Your task to perform on an android device: Clear all items from cart on amazon.com. Search for "razer blade" on amazon.com, select the first entry, add it to the cart, then select checkout. Image 0: 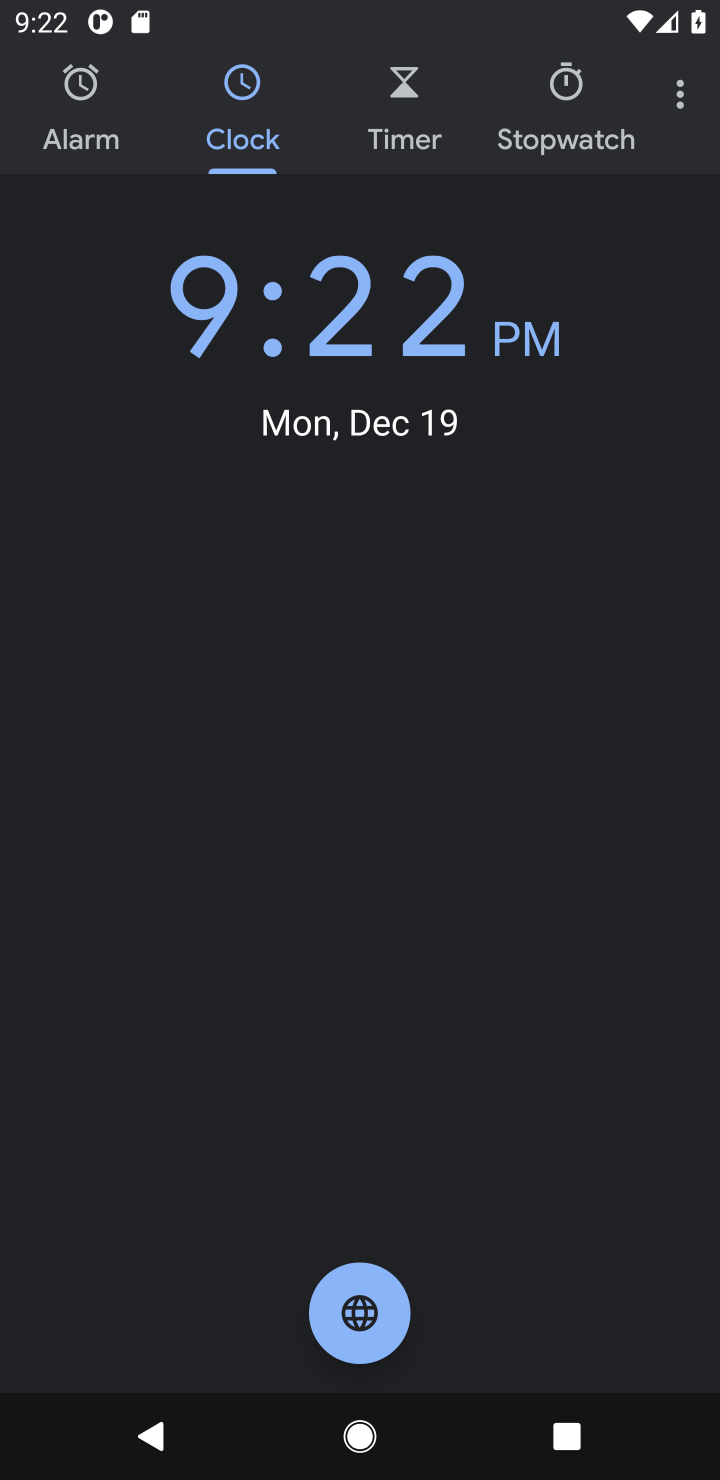
Step 0: press home button
Your task to perform on an android device: Clear all items from cart on amazon.com. Search for "razer blade" on amazon.com, select the first entry, add it to the cart, then select checkout. Image 1: 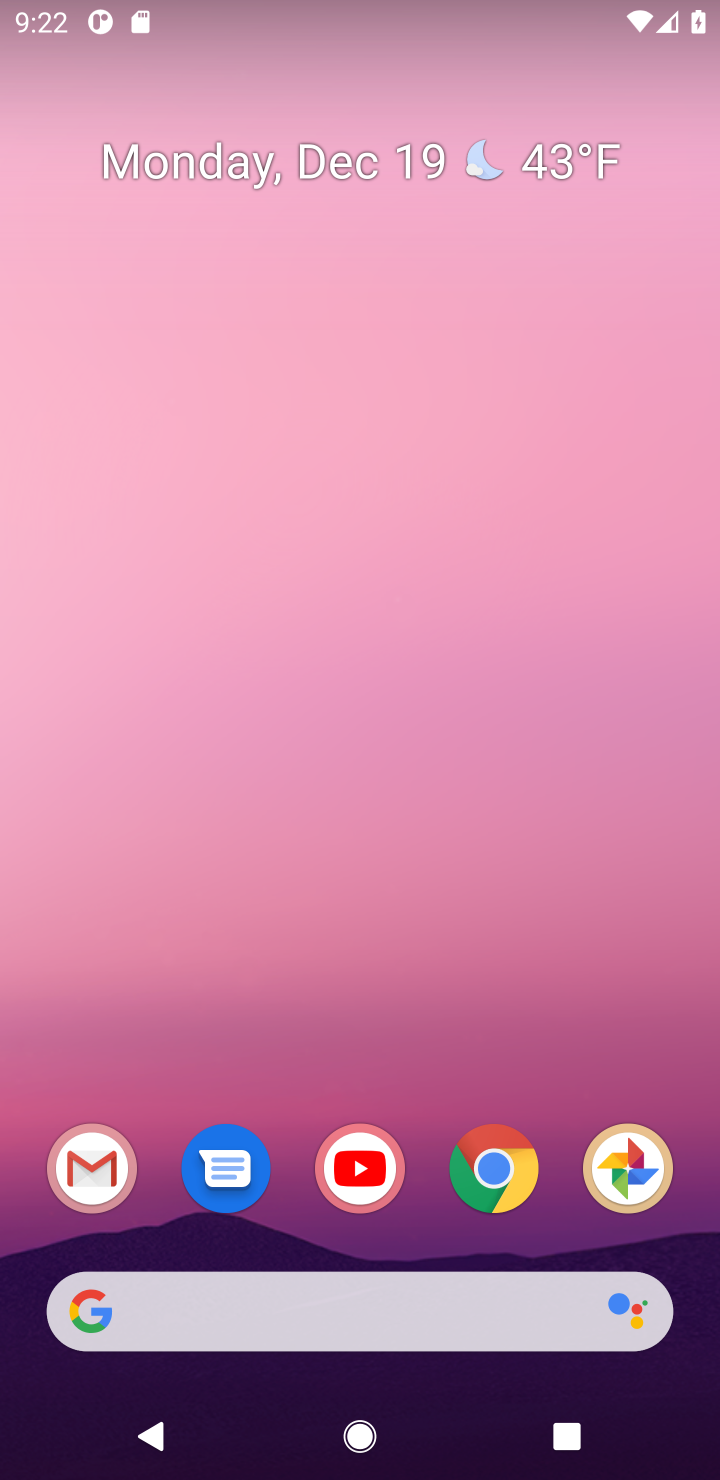
Step 1: click (498, 1179)
Your task to perform on an android device: Clear all items from cart on amazon.com. Search for "razer blade" on amazon.com, select the first entry, add it to the cart, then select checkout. Image 2: 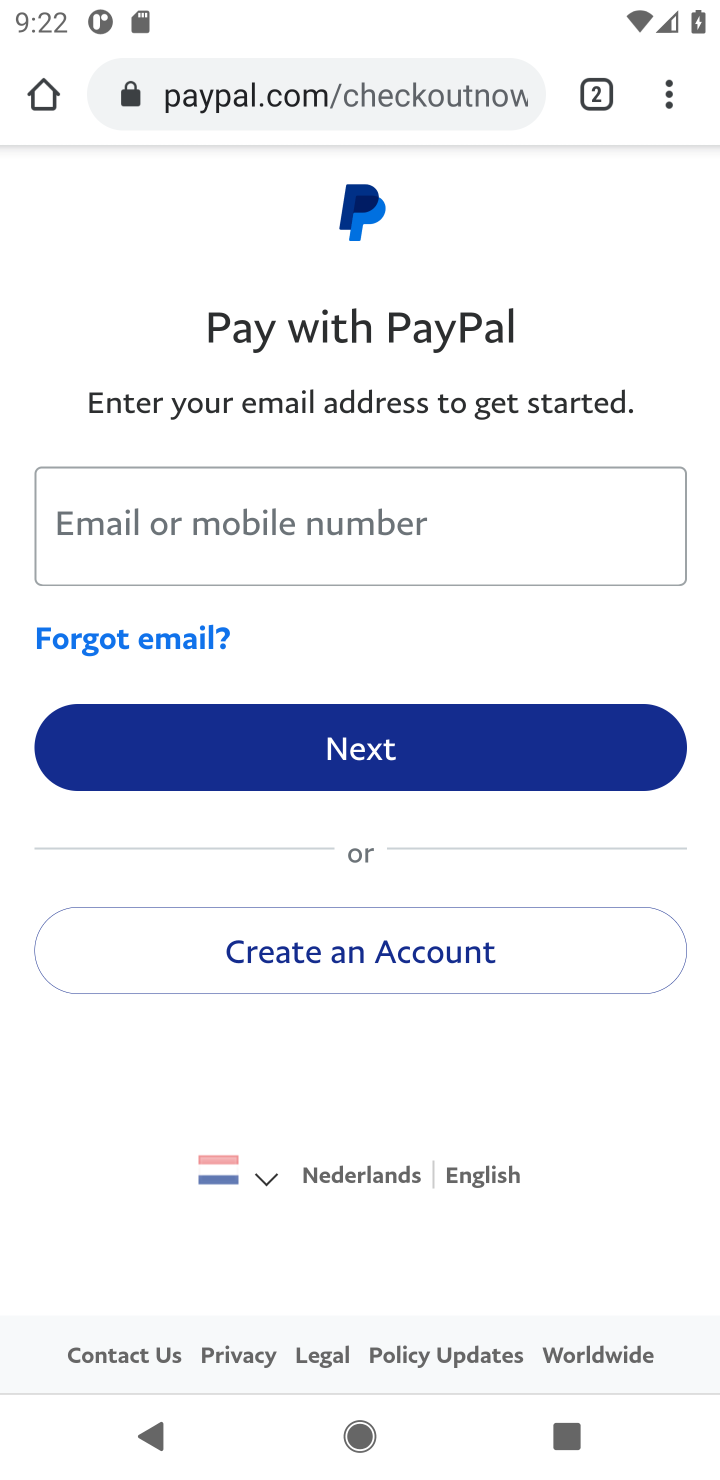
Step 2: click (239, 104)
Your task to perform on an android device: Clear all items from cart on amazon.com. Search for "razer blade" on amazon.com, select the first entry, add it to the cart, then select checkout. Image 3: 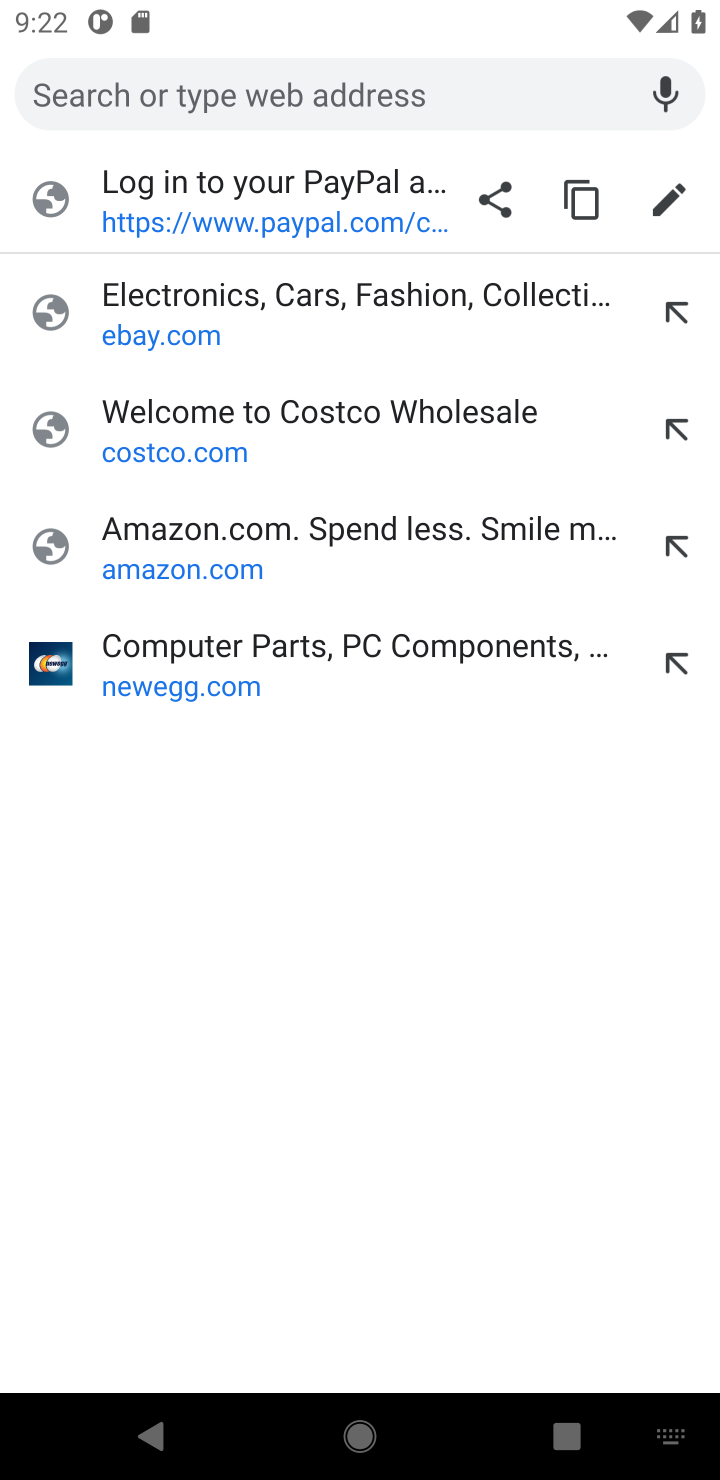
Step 3: click (158, 548)
Your task to perform on an android device: Clear all items from cart on amazon.com. Search for "razer blade" on amazon.com, select the first entry, add it to the cart, then select checkout. Image 4: 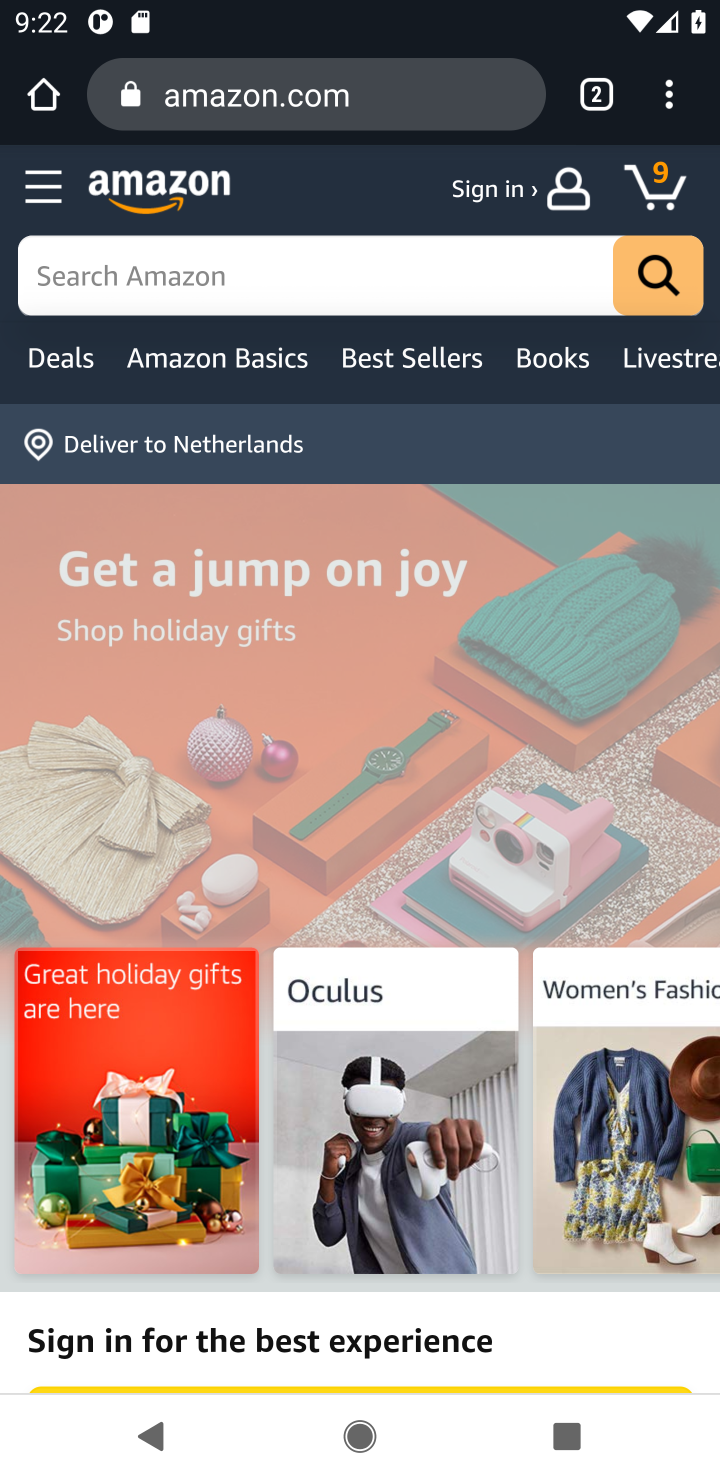
Step 4: click (655, 195)
Your task to perform on an android device: Clear all items from cart on amazon.com. Search for "razer blade" on amazon.com, select the first entry, add it to the cart, then select checkout. Image 5: 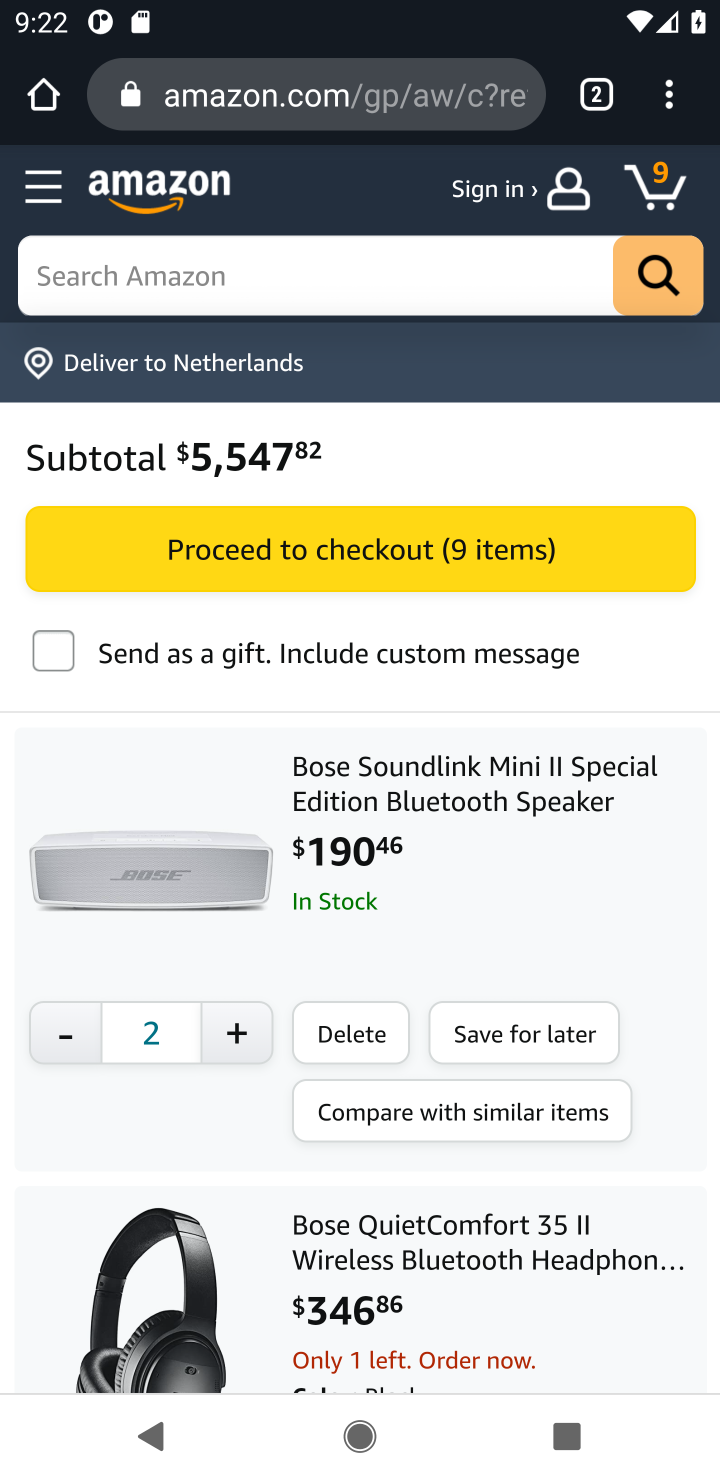
Step 5: click (353, 1035)
Your task to perform on an android device: Clear all items from cart on amazon.com. Search for "razer blade" on amazon.com, select the first entry, add it to the cart, then select checkout. Image 6: 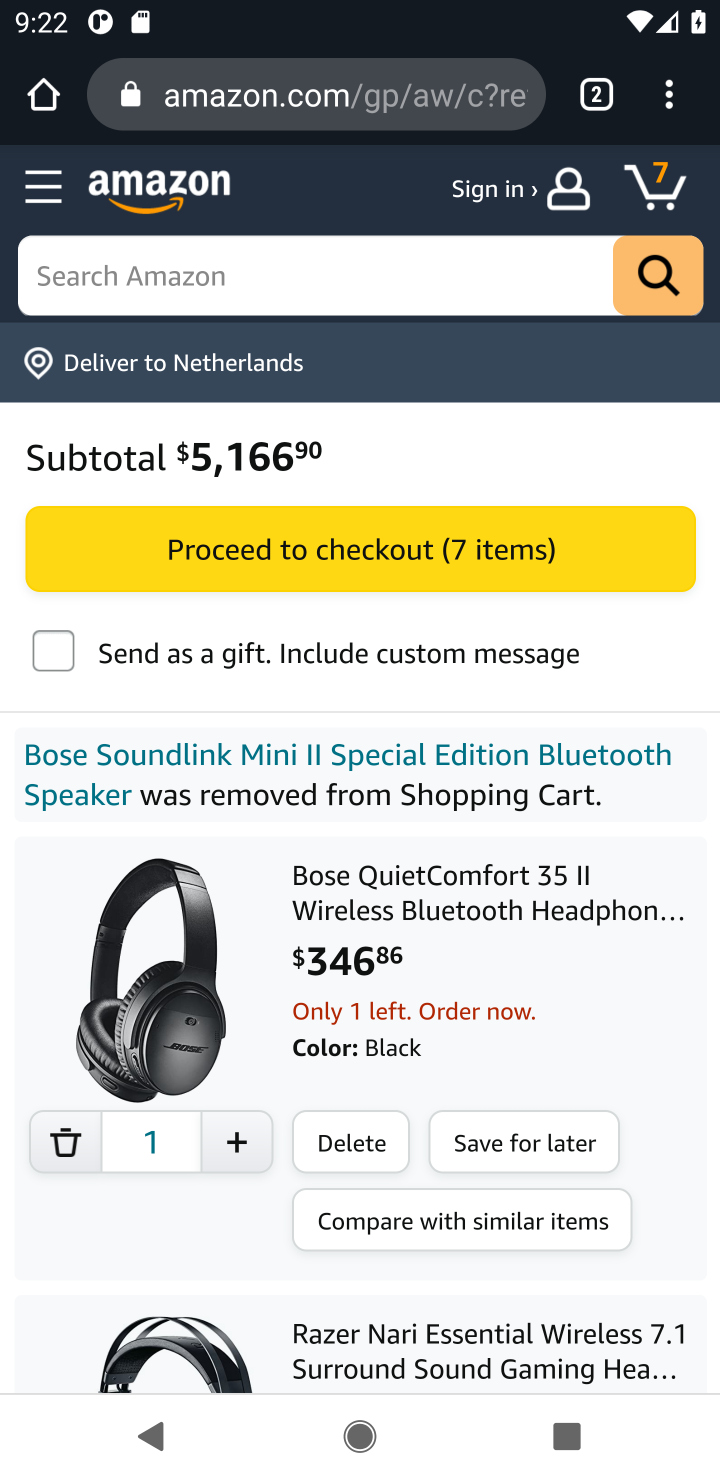
Step 6: click (347, 1138)
Your task to perform on an android device: Clear all items from cart on amazon.com. Search for "razer blade" on amazon.com, select the first entry, add it to the cart, then select checkout. Image 7: 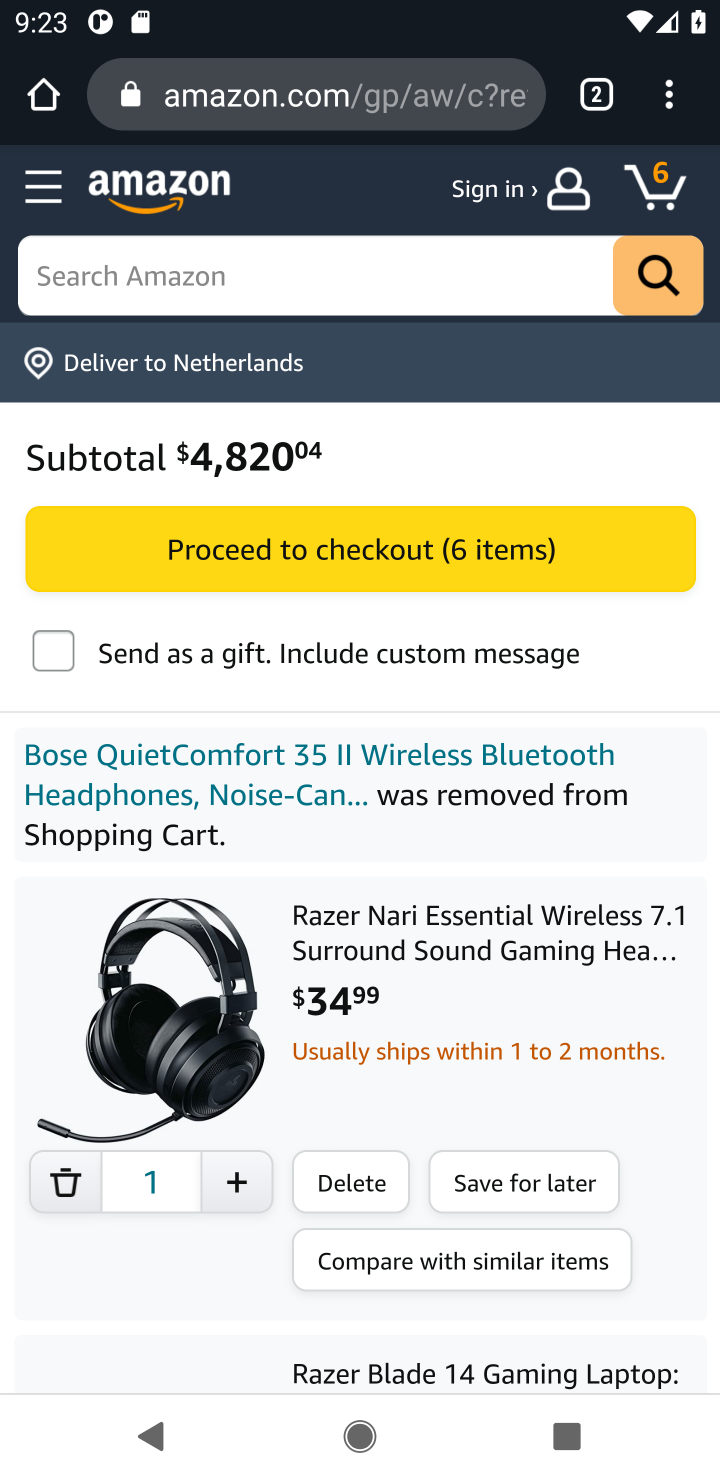
Step 7: click (347, 1177)
Your task to perform on an android device: Clear all items from cart on amazon.com. Search for "razer blade" on amazon.com, select the first entry, add it to the cart, then select checkout. Image 8: 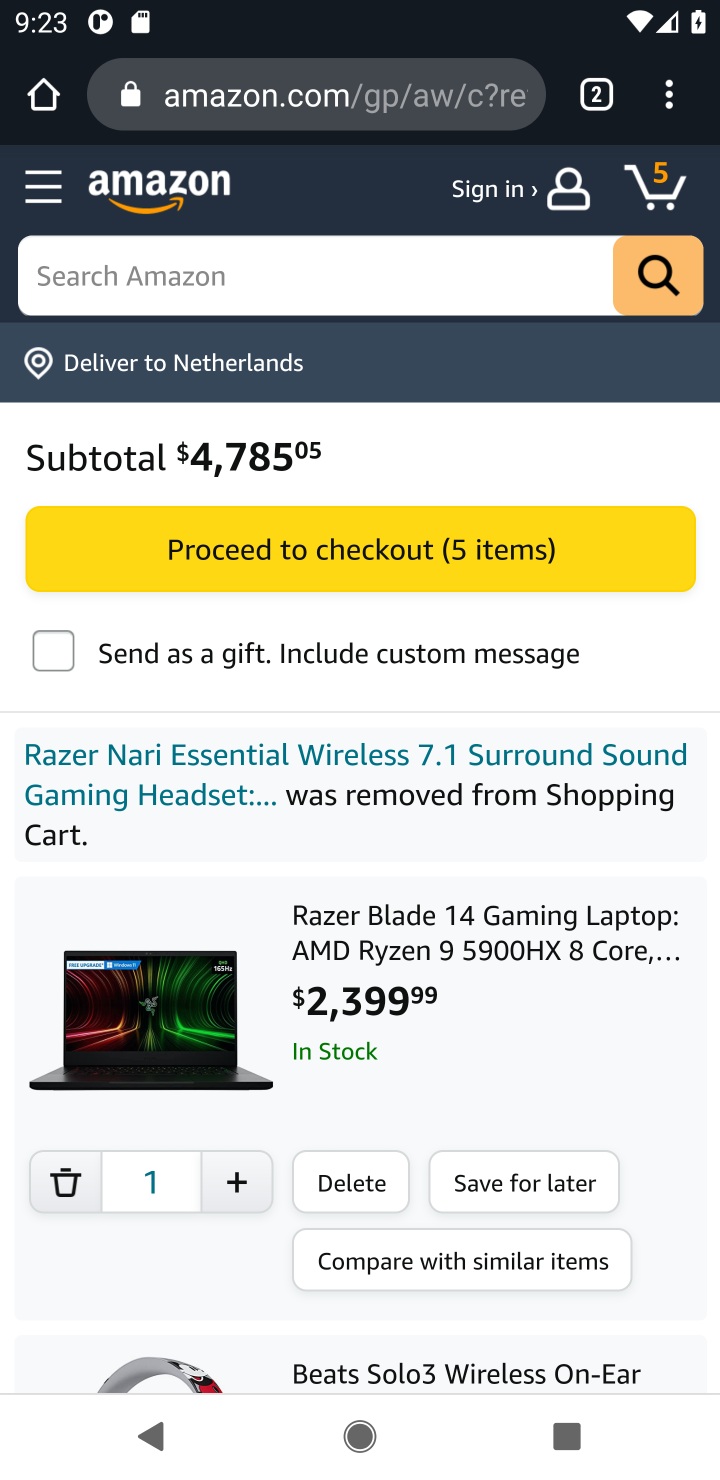
Step 8: click (347, 1177)
Your task to perform on an android device: Clear all items from cart on amazon.com. Search for "razer blade" on amazon.com, select the first entry, add it to the cart, then select checkout. Image 9: 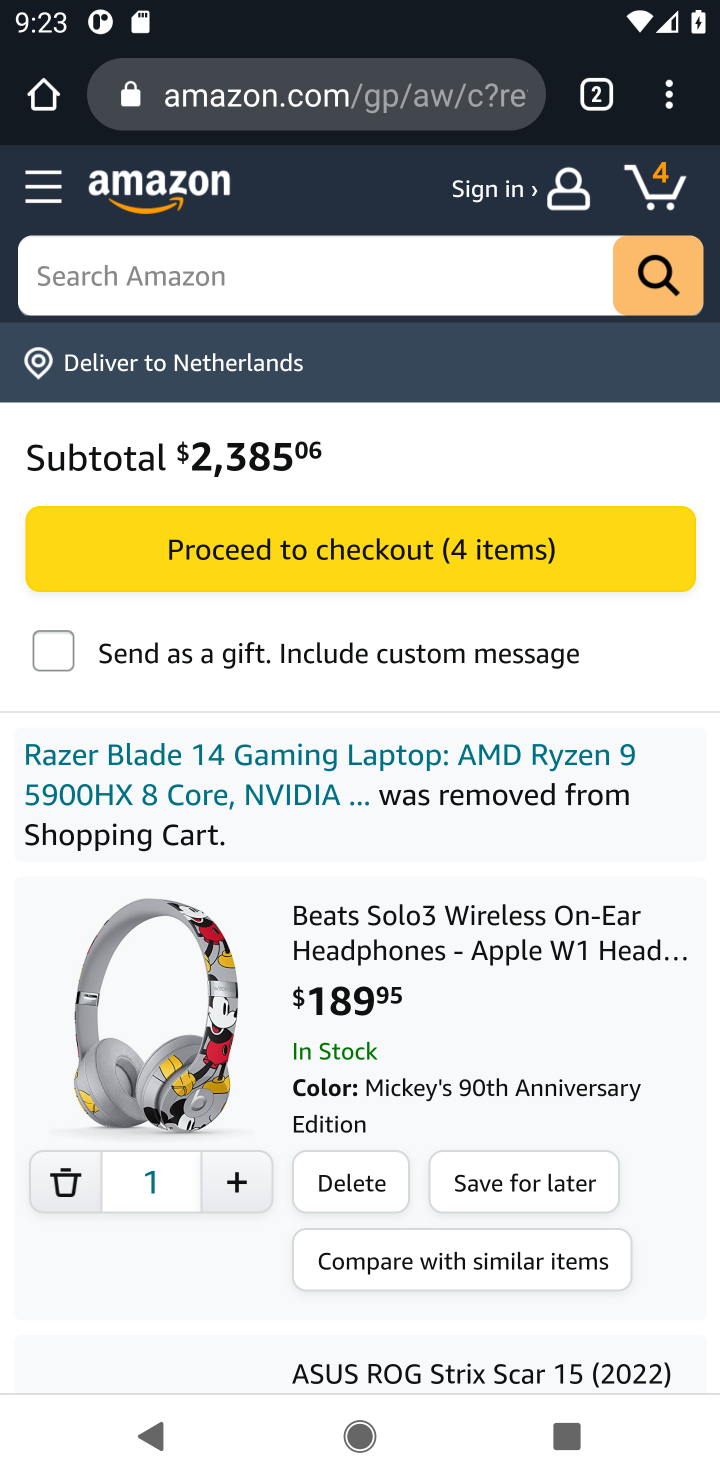
Step 9: click (347, 1177)
Your task to perform on an android device: Clear all items from cart on amazon.com. Search for "razer blade" on amazon.com, select the first entry, add it to the cart, then select checkout. Image 10: 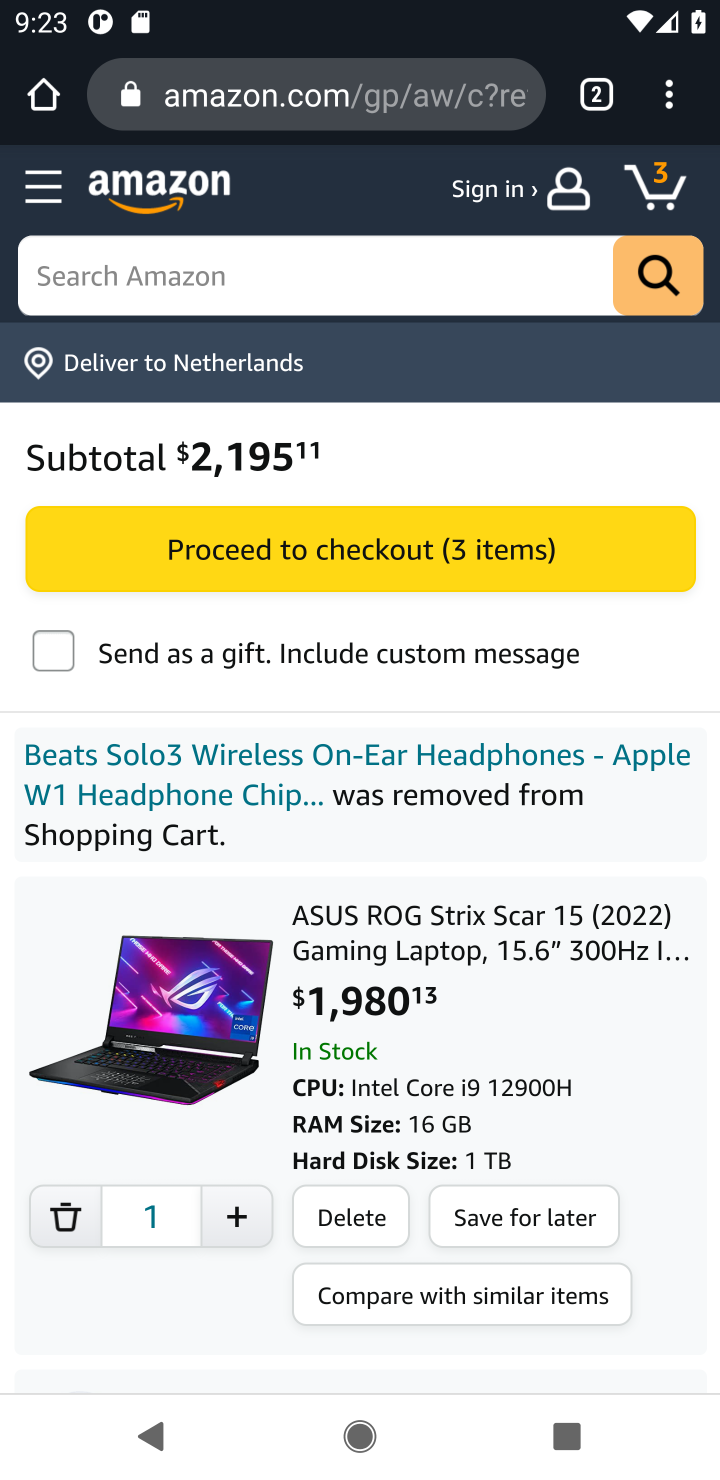
Step 10: click (347, 1213)
Your task to perform on an android device: Clear all items from cart on amazon.com. Search for "razer blade" on amazon.com, select the first entry, add it to the cart, then select checkout. Image 11: 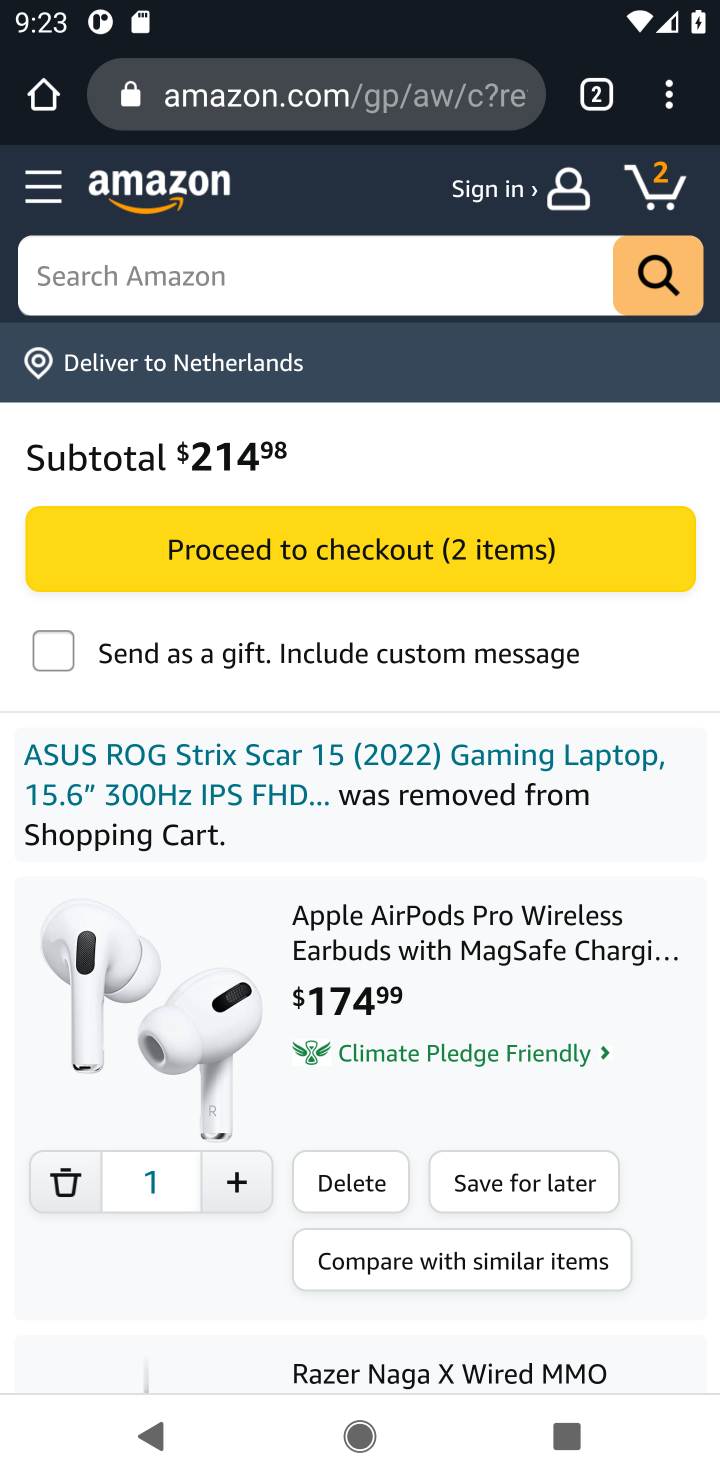
Step 11: click (355, 1171)
Your task to perform on an android device: Clear all items from cart on amazon.com. Search for "razer blade" on amazon.com, select the first entry, add it to the cart, then select checkout. Image 12: 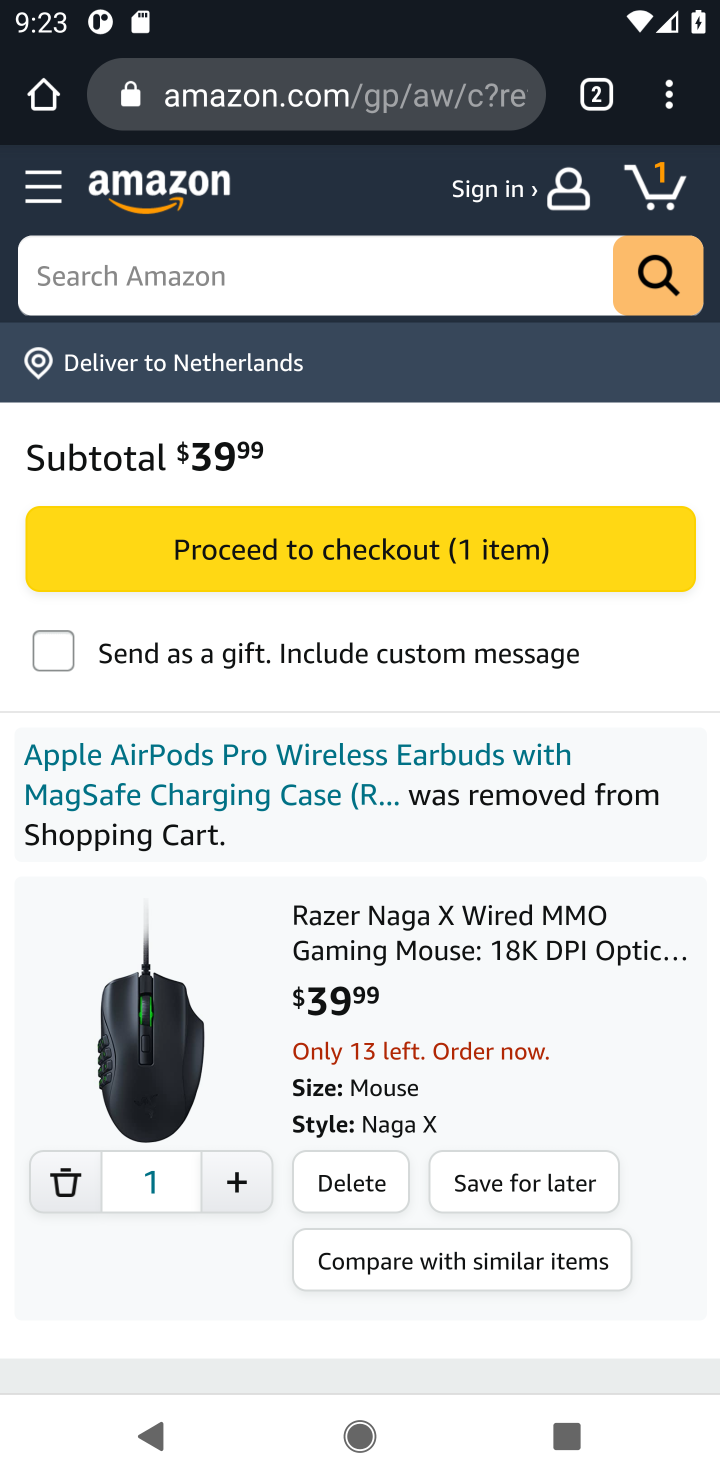
Step 12: click (355, 1179)
Your task to perform on an android device: Clear all items from cart on amazon.com. Search for "razer blade" on amazon.com, select the first entry, add it to the cart, then select checkout. Image 13: 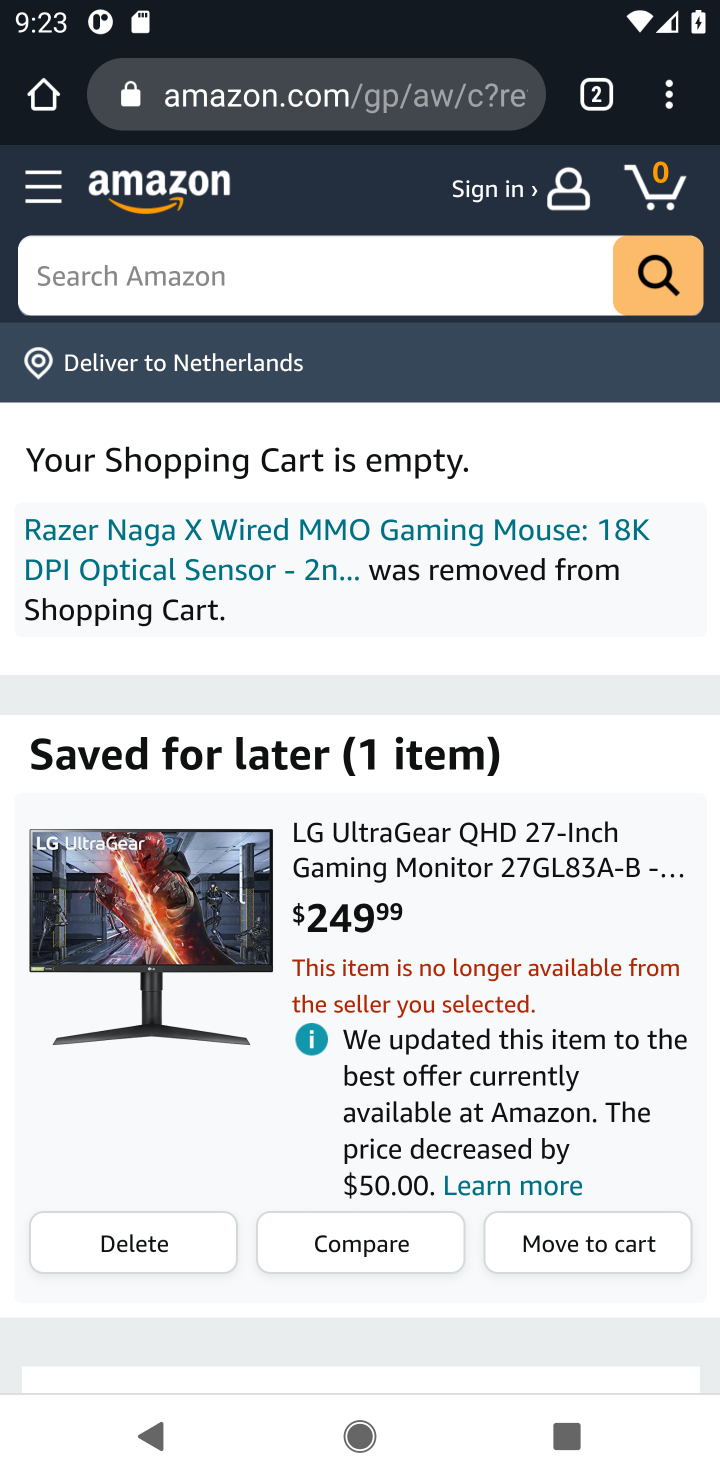
Step 13: click (160, 1245)
Your task to perform on an android device: Clear all items from cart on amazon.com. Search for "razer blade" on amazon.com, select the first entry, add it to the cart, then select checkout. Image 14: 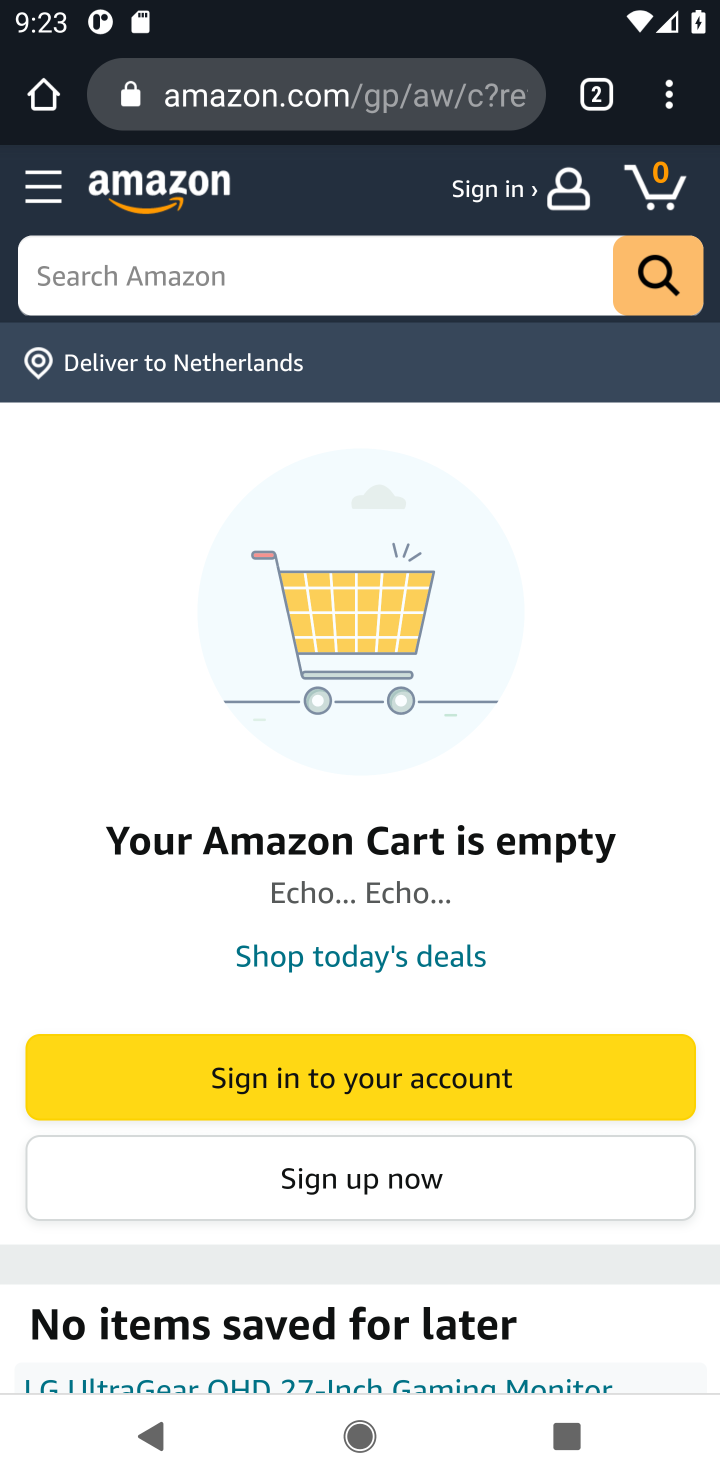
Step 14: click (154, 292)
Your task to perform on an android device: Clear all items from cart on amazon.com. Search for "razer blade" on amazon.com, select the first entry, add it to the cart, then select checkout. Image 15: 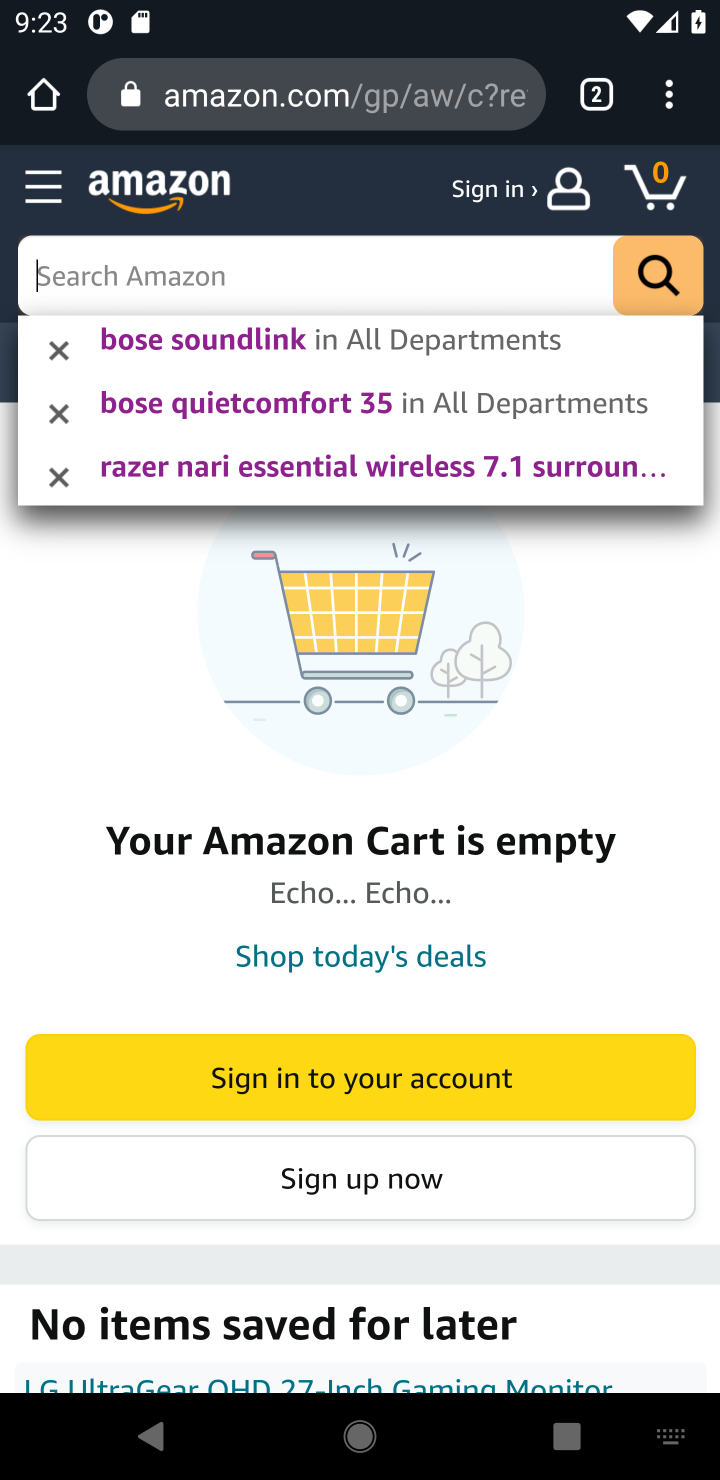
Step 15: type "razer blade"
Your task to perform on an android device: Clear all items from cart on amazon.com. Search for "razer blade" on amazon.com, select the first entry, add it to the cart, then select checkout. Image 16: 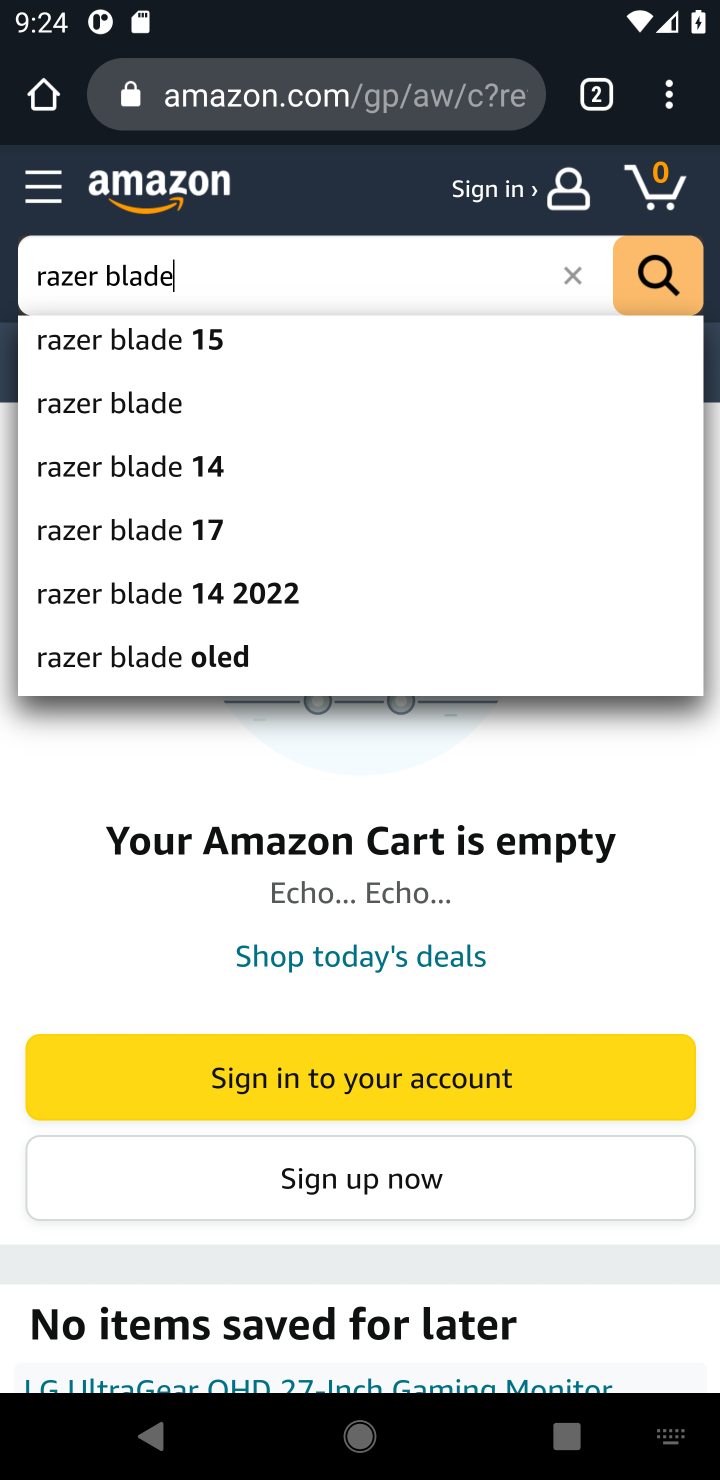
Step 16: click (152, 352)
Your task to perform on an android device: Clear all items from cart on amazon.com. Search for "razer blade" on amazon.com, select the first entry, add it to the cart, then select checkout. Image 17: 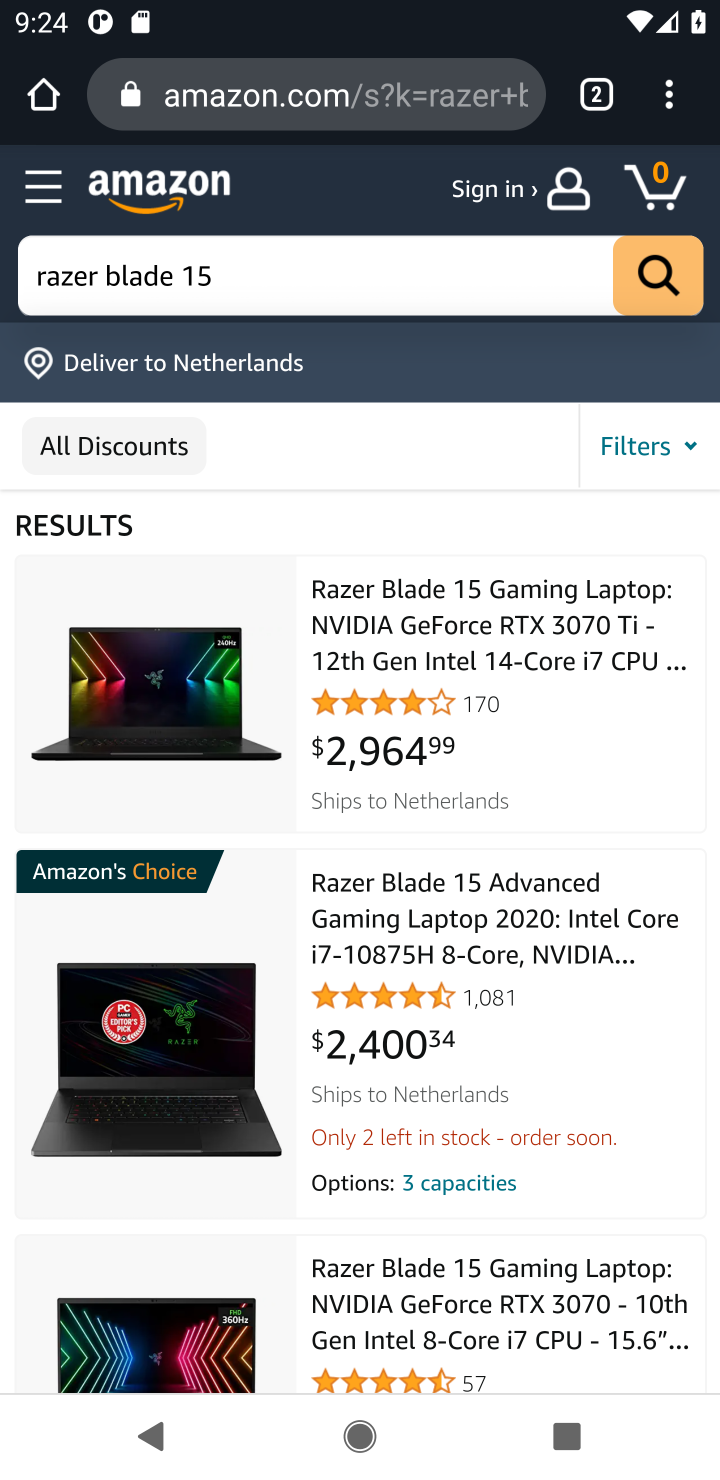
Step 17: click (427, 657)
Your task to perform on an android device: Clear all items from cart on amazon.com. Search for "razer blade" on amazon.com, select the first entry, add it to the cart, then select checkout. Image 18: 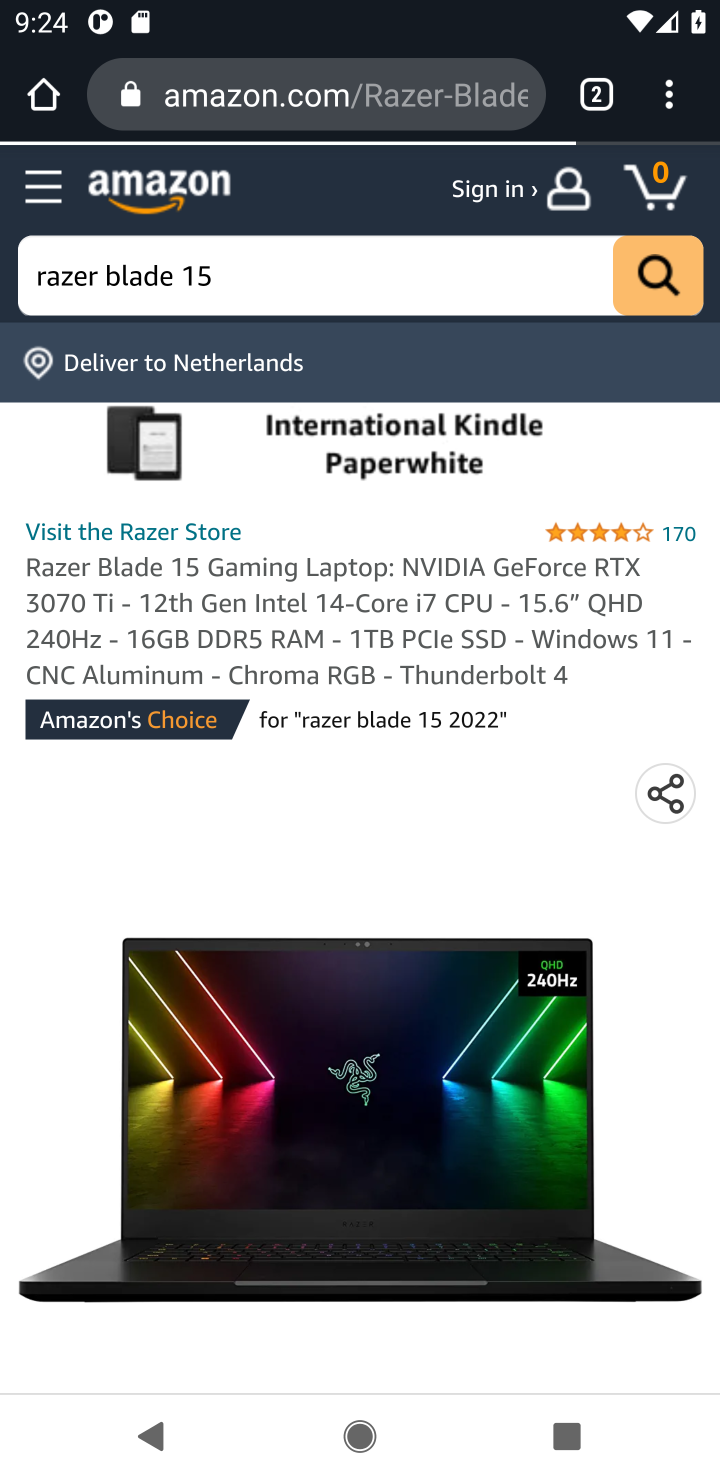
Step 18: drag from (377, 1022) to (342, 475)
Your task to perform on an android device: Clear all items from cart on amazon.com. Search for "razer blade" on amazon.com, select the first entry, add it to the cart, then select checkout. Image 19: 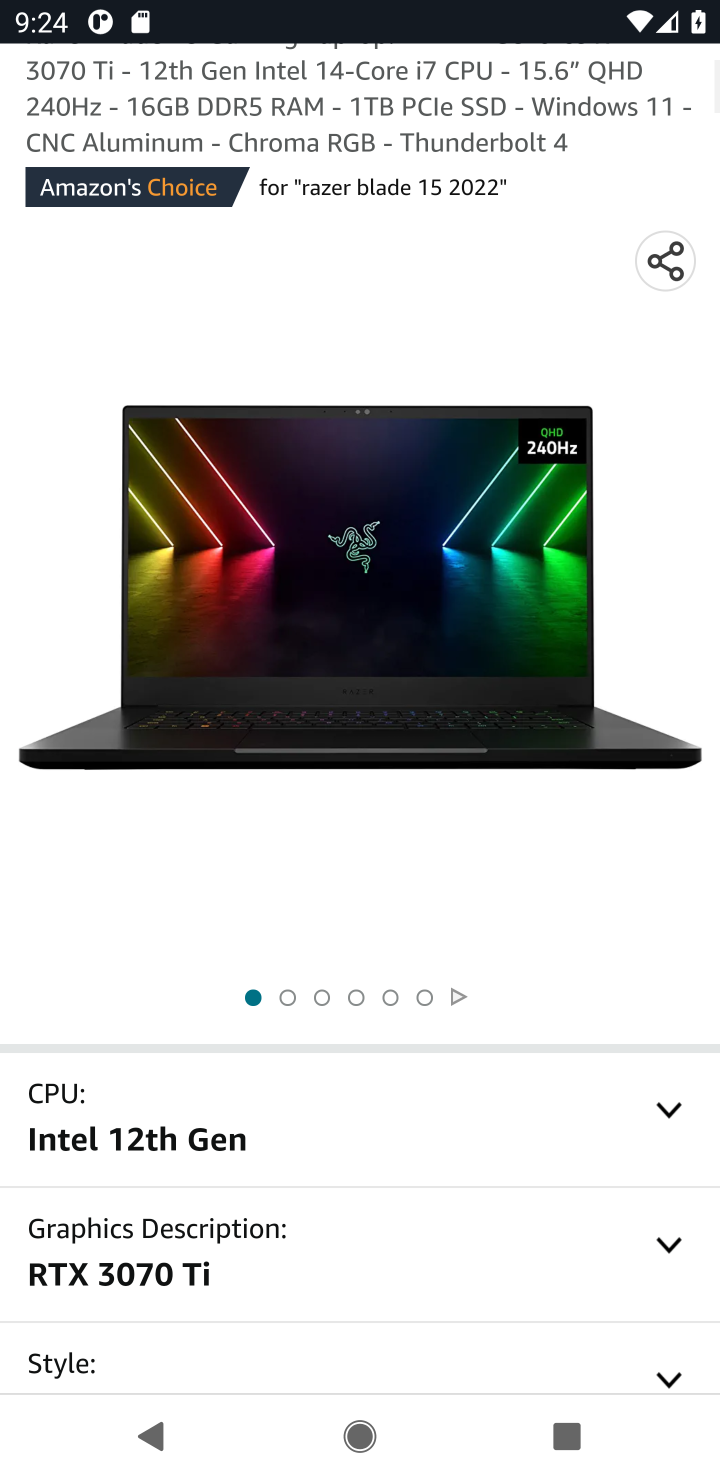
Step 19: drag from (346, 1077) to (365, 543)
Your task to perform on an android device: Clear all items from cart on amazon.com. Search for "razer blade" on amazon.com, select the first entry, add it to the cart, then select checkout. Image 20: 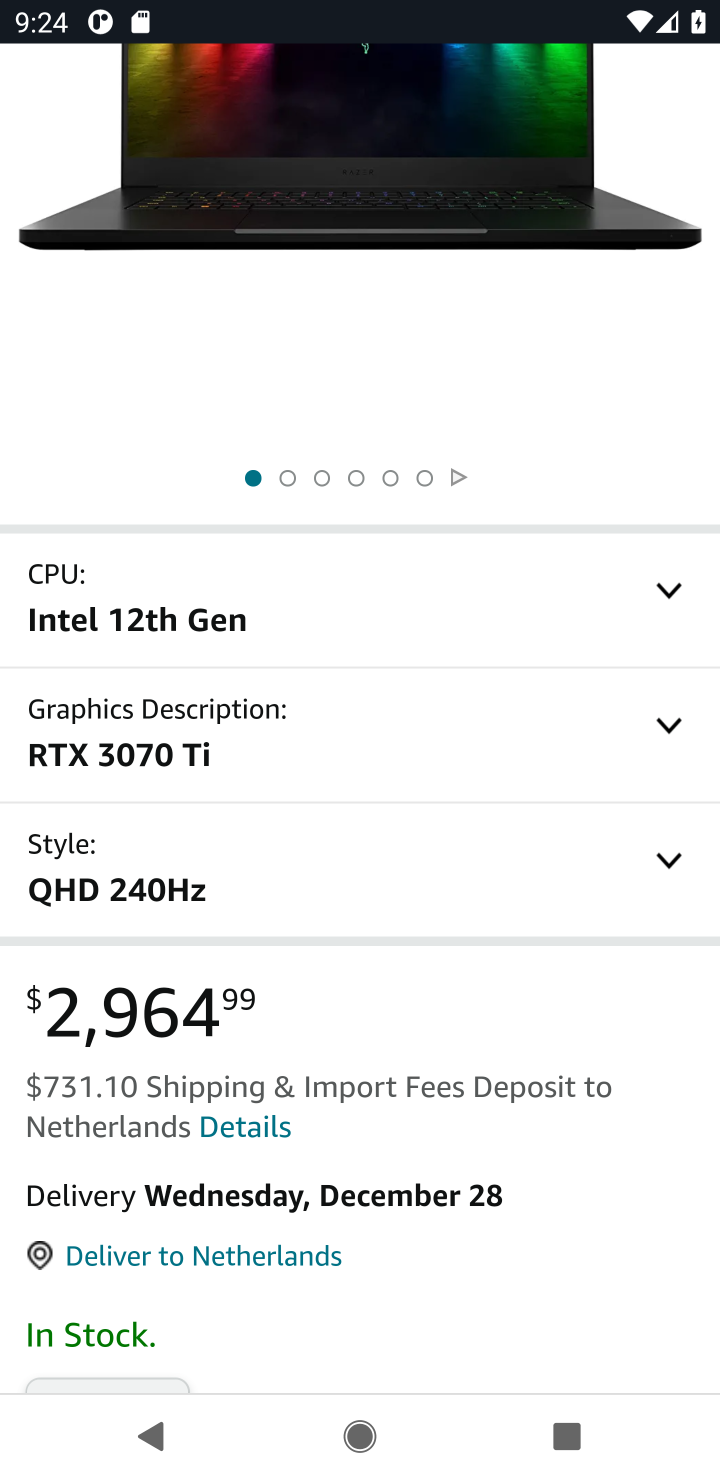
Step 20: drag from (348, 1016) to (325, 461)
Your task to perform on an android device: Clear all items from cart on amazon.com. Search for "razer blade" on amazon.com, select the first entry, add it to the cart, then select checkout. Image 21: 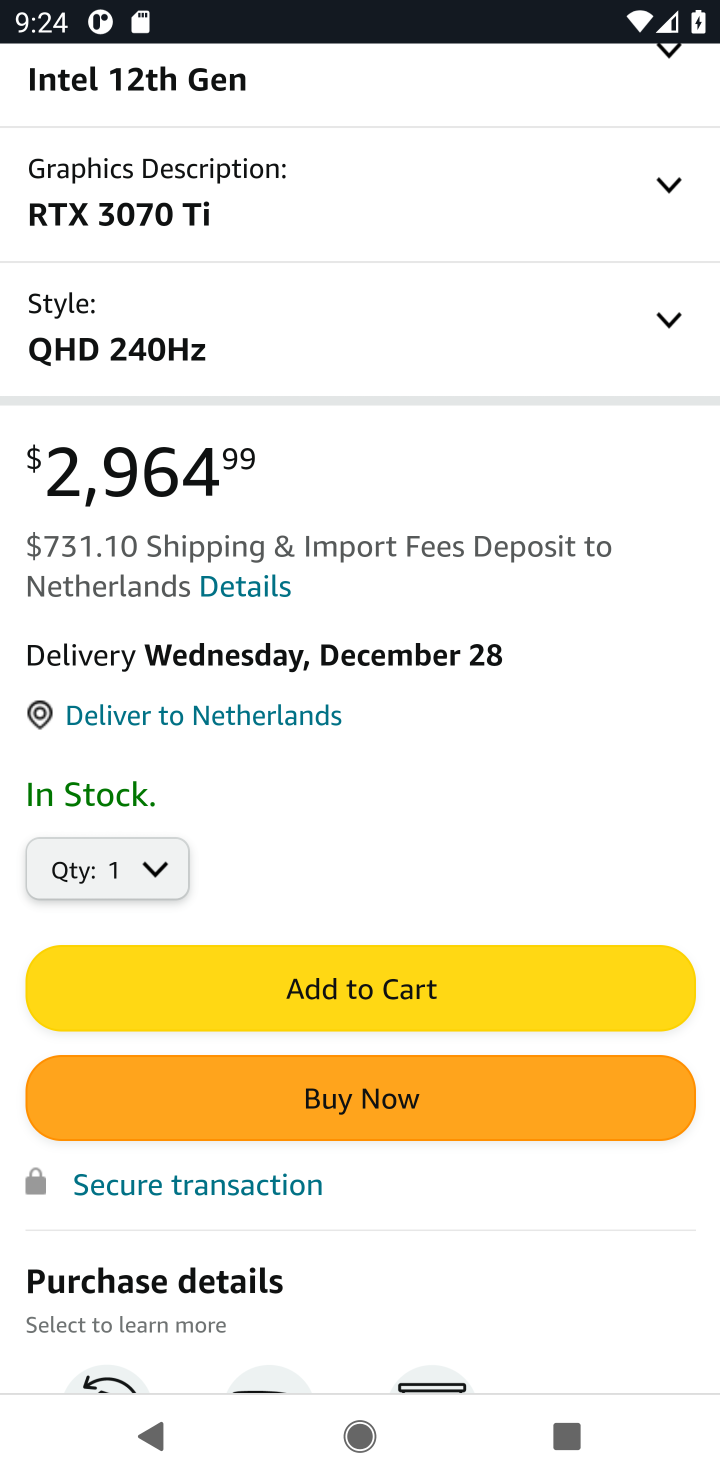
Step 21: click (312, 990)
Your task to perform on an android device: Clear all items from cart on amazon.com. Search for "razer blade" on amazon.com, select the first entry, add it to the cart, then select checkout. Image 22: 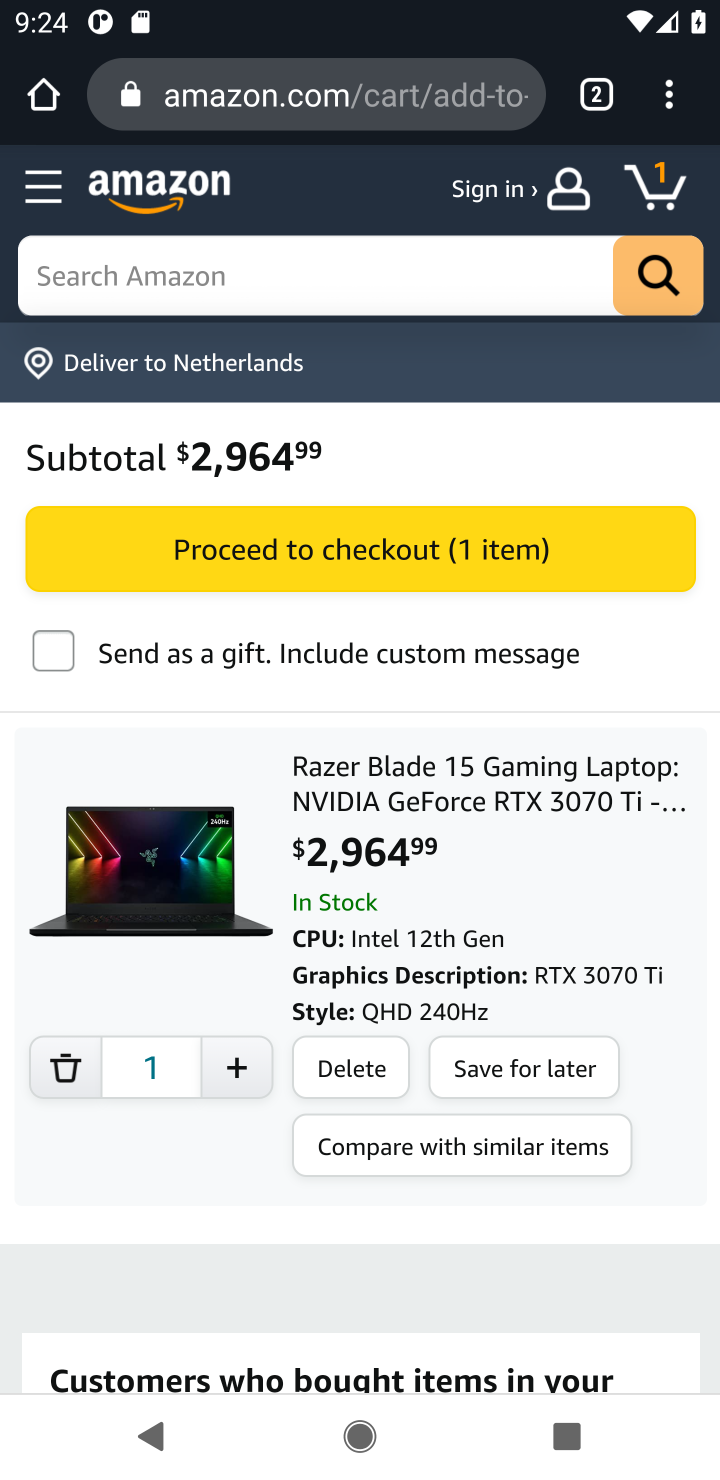
Step 22: click (318, 560)
Your task to perform on an android device: Clear all items from cart on amazon.com. Search for "razer blade" on amazon.com, select the first entry, add it to the cart, then select checkout. Image 23: 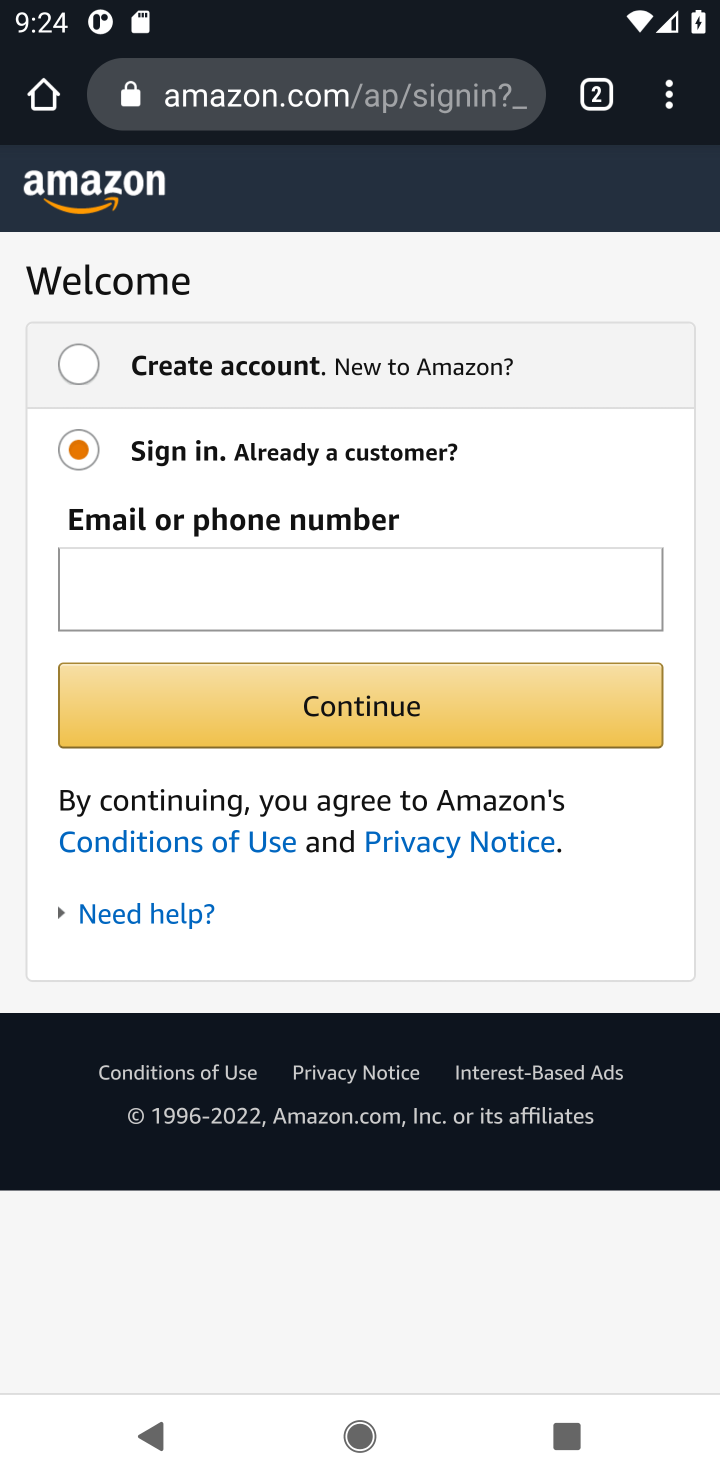
Step 23: task complete